Your task to perform on an android device: set the stopwatch Image 0: 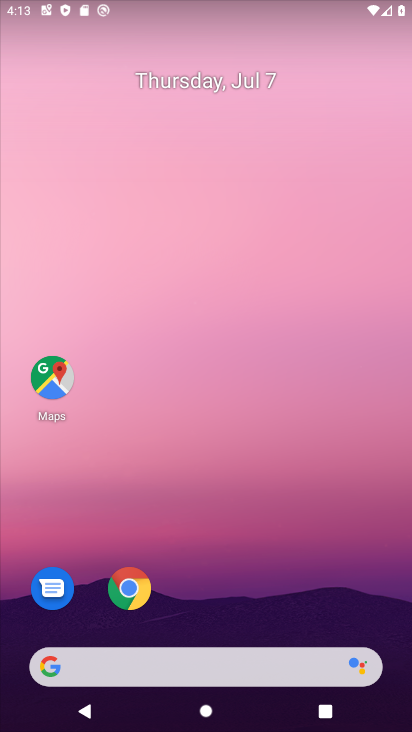
Step 0: press home button
Your task to perform on an android device: set the stopwatch Image 1: 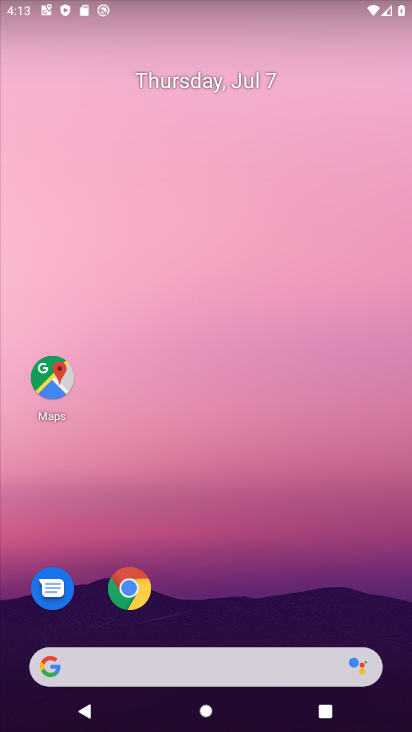
Step 1: drag from (224, 622) to (280, 164)
Your task to perform on an android device: set the stopwatch Image 2: 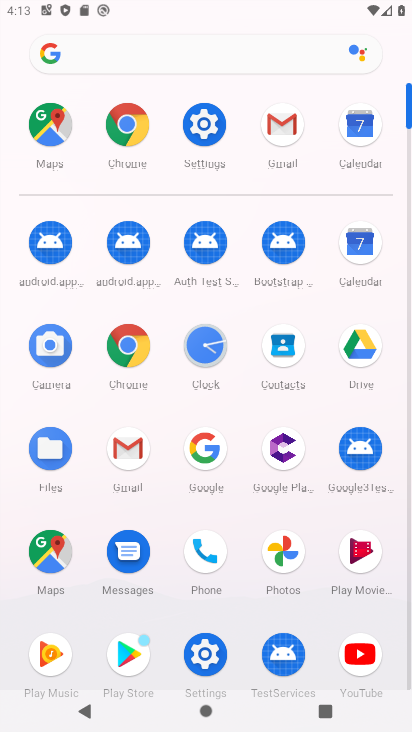
Step 2: click (200, 361)
Your task to perform on an android device: set the stopwatch Image 3: 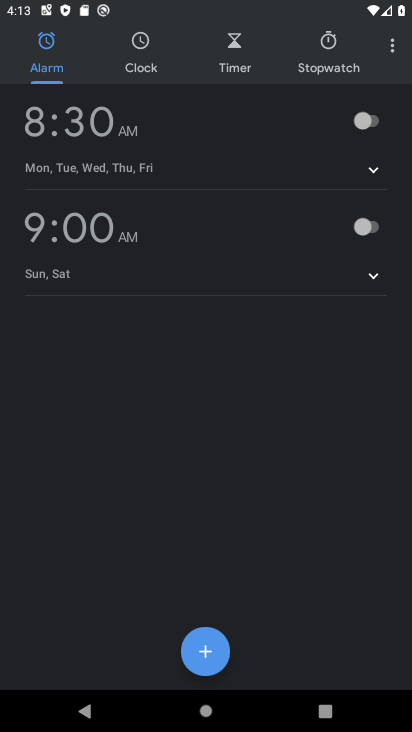
Step 3: click (331, 40)
Your task to perform on an android device: set the stopwatch Image 4: 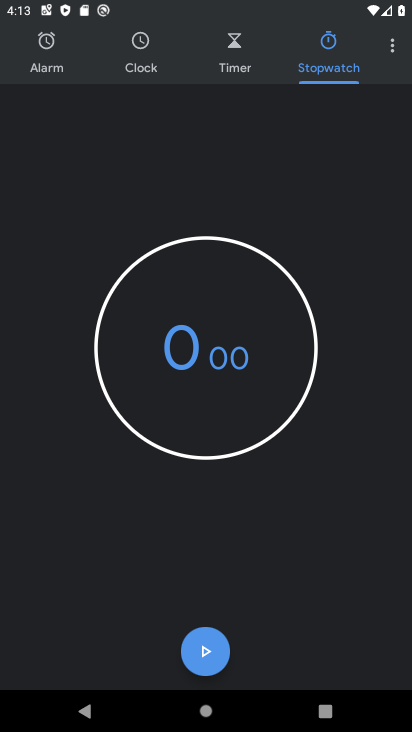
Step 4: click (186, 358)
Your task to perform on an android device: set the stopwatch Image 5: 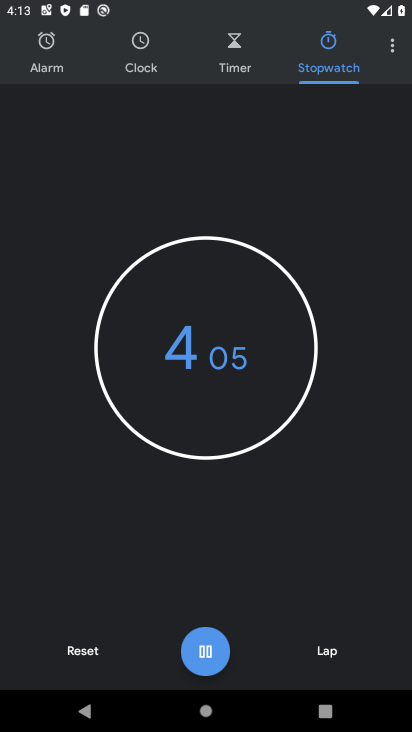
Step 5: task complete